Your task to perform on an android device: Go to Android settings Image 0: 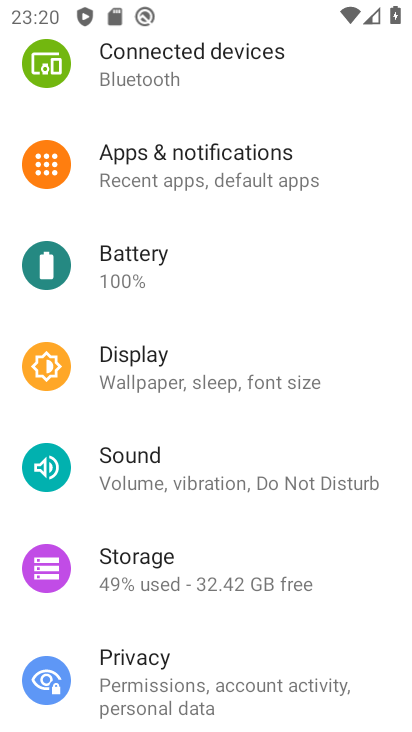
Step 0: press home button
Your task to perform on an android device: Go to Android settings Image 1: 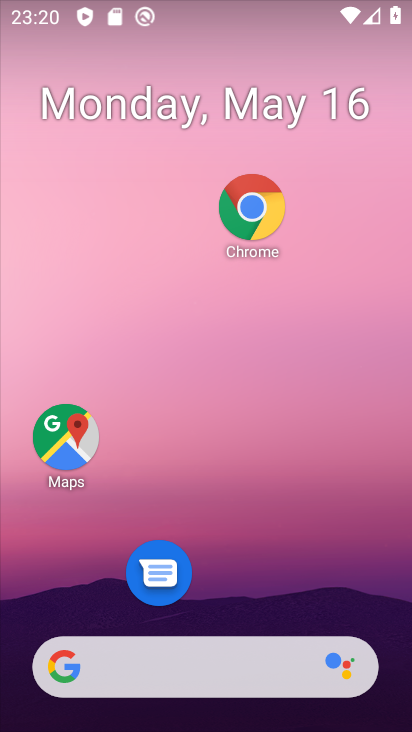
Step 1: drag from (268, 618) to (225, 8)
Your task to perform on an android device: Go to Android settings Image 2: 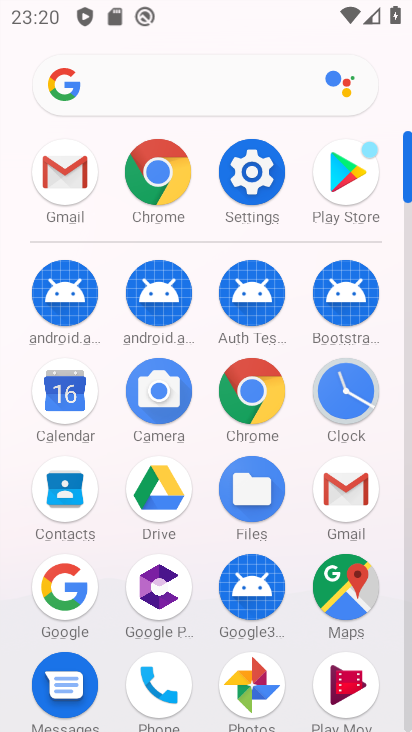
Step 2: click (254, 187)
Your task to perform on an android device: Go to Android settings Image 3: 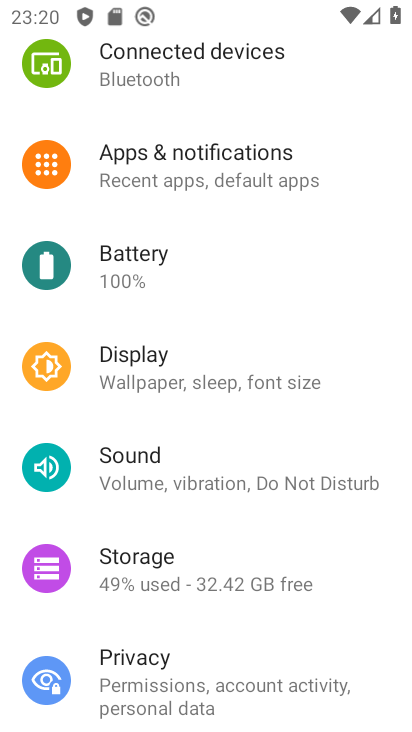
Step 3: drag from (207, 294) to (271, 724)
Your task to perform on an android device: Go to Android settings Image 4: 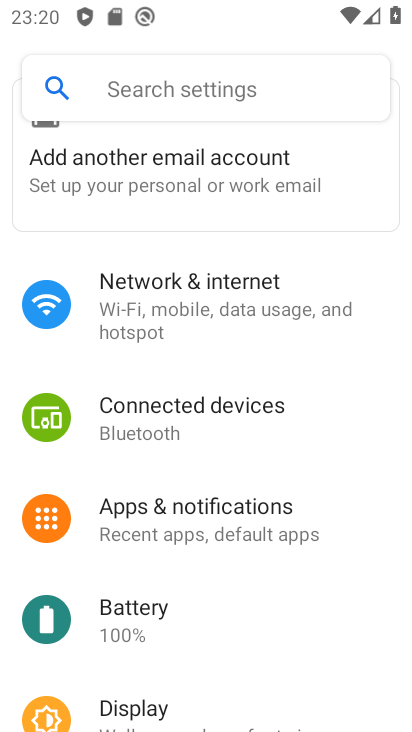
Step 4: drag from (253, 649) to (181, 178)
Your task to perform on an android device: Go to Android settings Image 5: 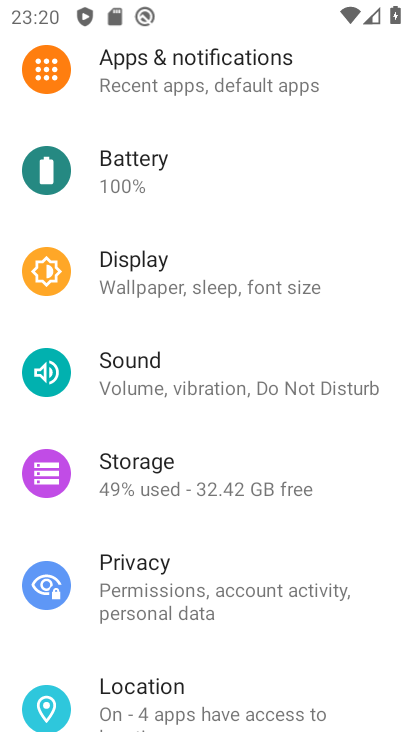
Step 5: drag from (242, 642) to (176, 192)
Your task to perform on an android device: Go to Android settings Image 6: 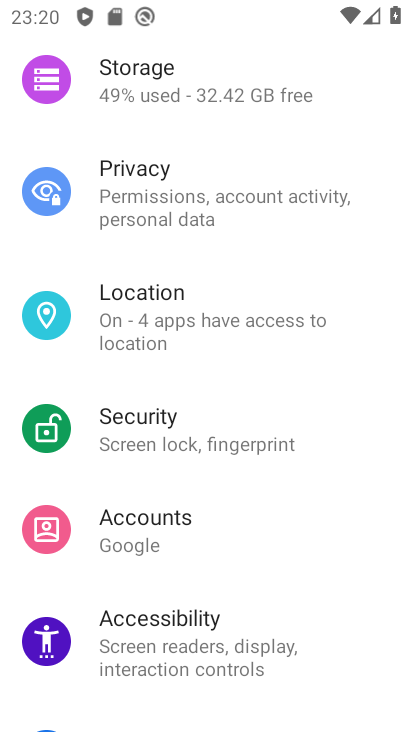
Step 6: drag from (247, 660) to (279, 135)
Your task to perform on an android device: Go to Android settings Image 7: 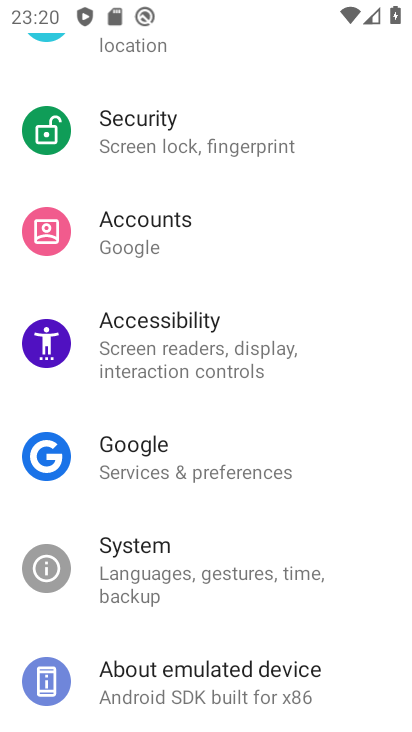
Step 7: click (260, 683)
Your task to perform on an android device: Go to Android settings Image 8: 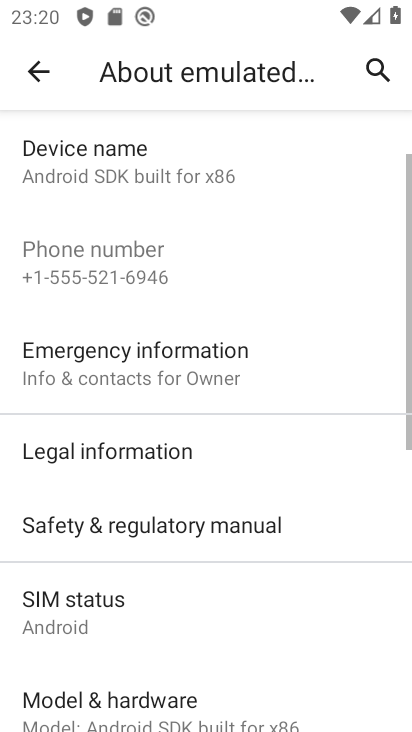
Step 8: drag from (250, 681) to (274, 49)
Your task to perform on an android device: Go to Android settings Image 9: 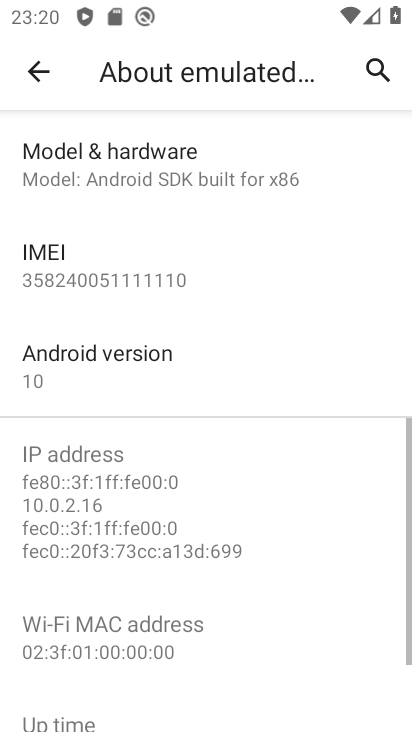
Step 9: click (82, 350)
Your task to perform on an android device: Go to Android settings Image 10: 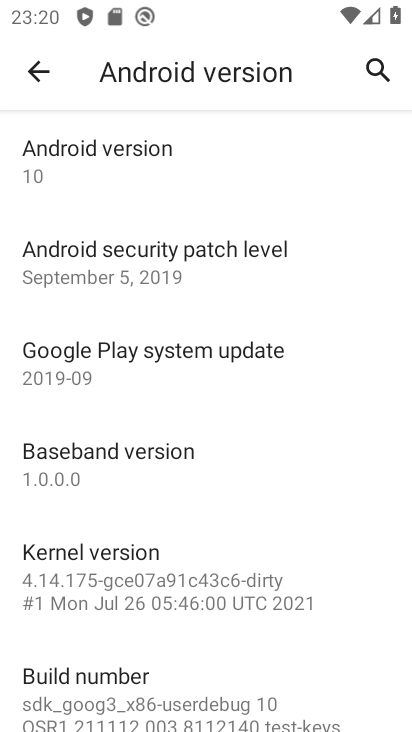
Step 10: task complete